Your task to perform on an android device: toggle sleep mode Image 0: 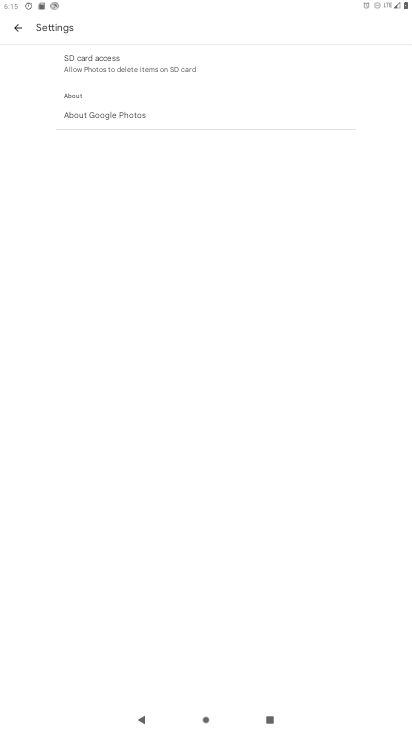
Step 0: press home button
Your task to perform on an android device: toggle sleep mode Image 1: 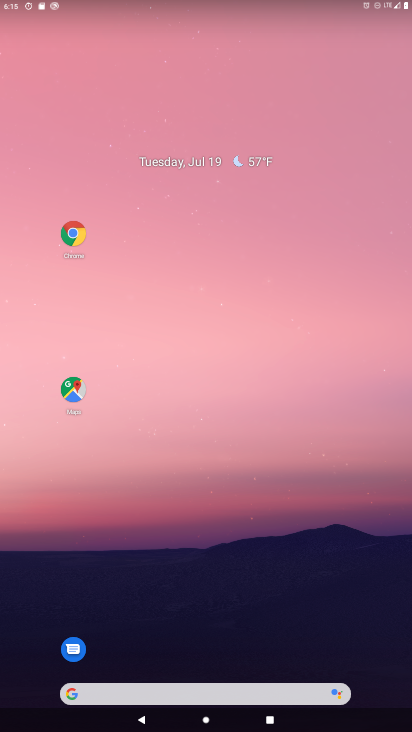
Step 1: task complete